Your task to perform on an android device: What's the weather going to be this weekend? Image 0: 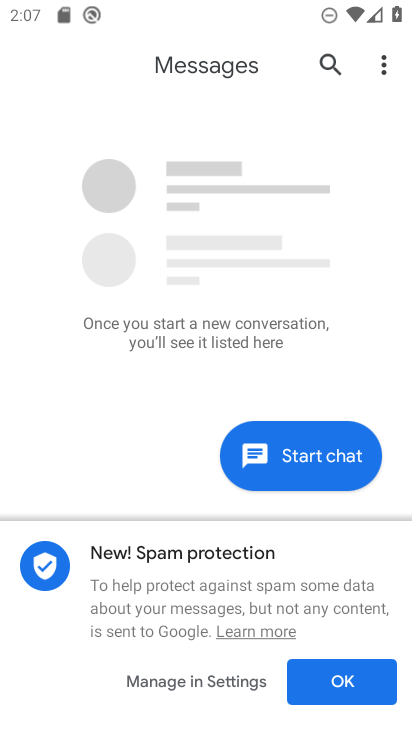
Step 0: press home button
Your task to perform on an android device: What's the weather going to be this weekend? Image 1: 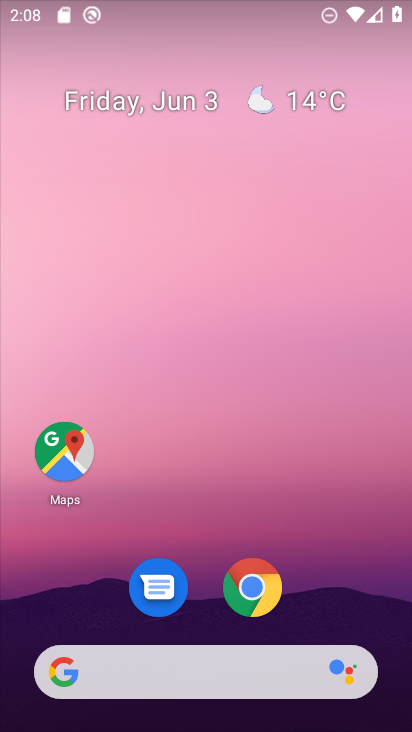
Step 1: click (151, 676)
Your task to perform on an android device: What's the weather going to be this weekend? Image 2: 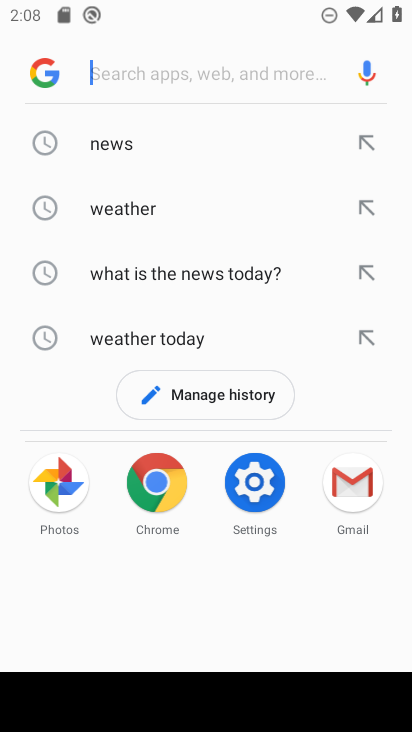
Step 2: type "what's the weather going to be this weekend"
Your task to perform on an android device: What's the weather going to be this weekend? Image 3: 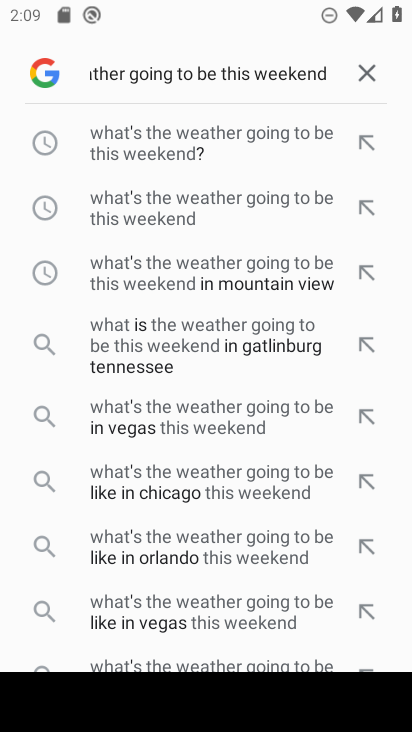
Step 3: click (189, 147)
Your task to perform on an android device: What's the weather going to be this weekend? Image 4: 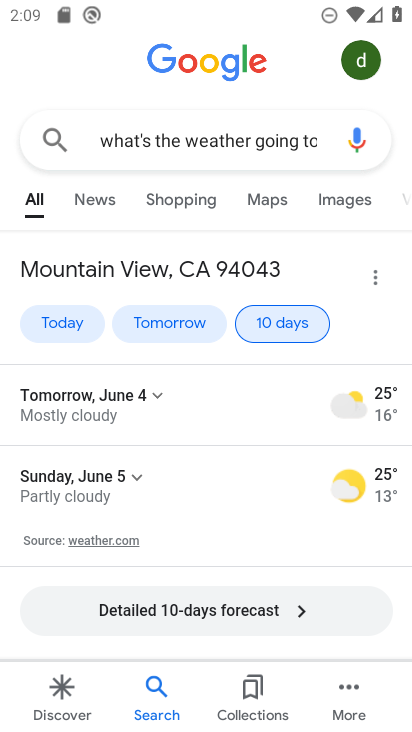
Step 4: task complete